Your task to perform on an android device: turn on data saver in the chrome app Image 0: 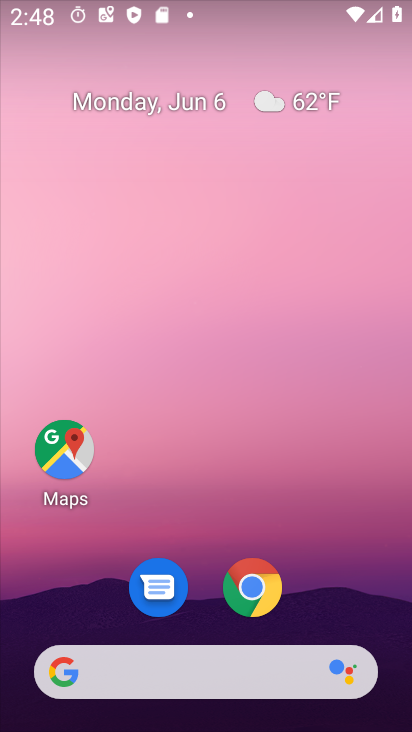
Step 0: drag from (332, 518) to (186, 0)
Your task to perform on an android device: turn on data saver in the chrome app Image 1: 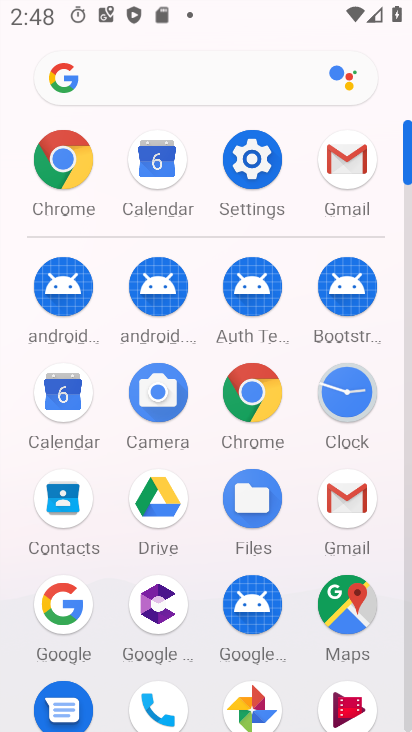
Step 1: drag from (14, 577) to (17, 201)
Your task to perform on an android device: turn on data saver in the chrome app Image 2: 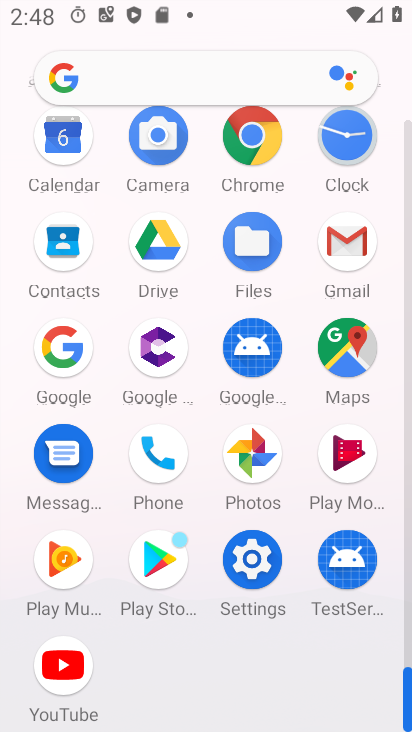
Step 2: click (246, 125)
Your task to perform on an android device: turn on data saver in the chrome app Image 3: 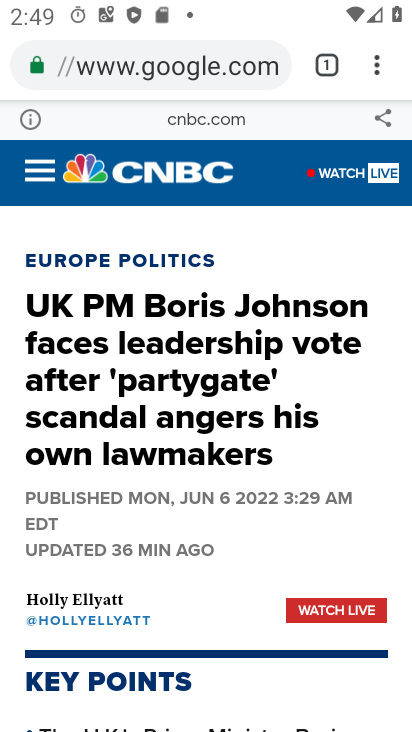
Step 3: drag from (379, 67) to (222, 627)
Your task to perform on an android device: turn on data saver in the chrome app Image 4: 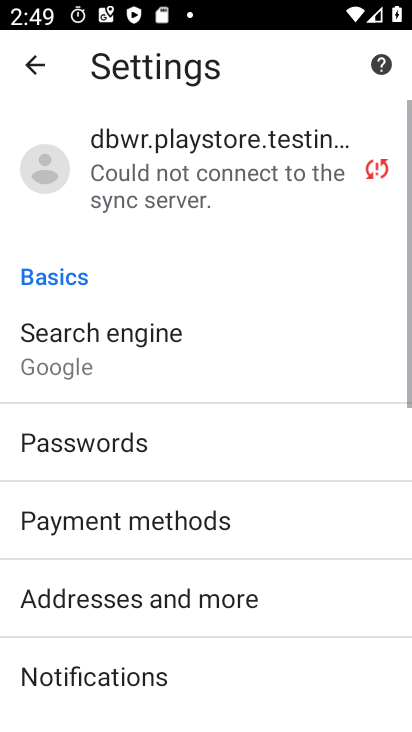
Step 4: drag from (208, 543) to (208, 211)
Your task to perform on an android device: turn on data saver in the chrome app Image 5: 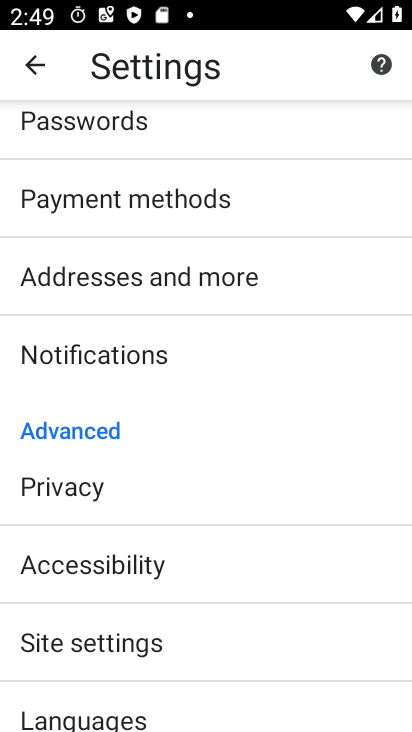
Step 5: drag from (200, 600) to (233, 184)
Your task to perform on an android device: turn on data saver in the chrome app Image 6: 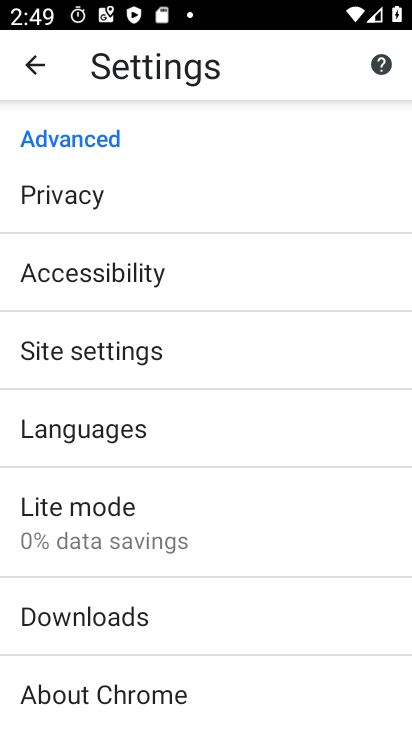
Step 6: click (183, 506)
Your task to perform on an android device: turn on data saver in the chrome app Image 7: 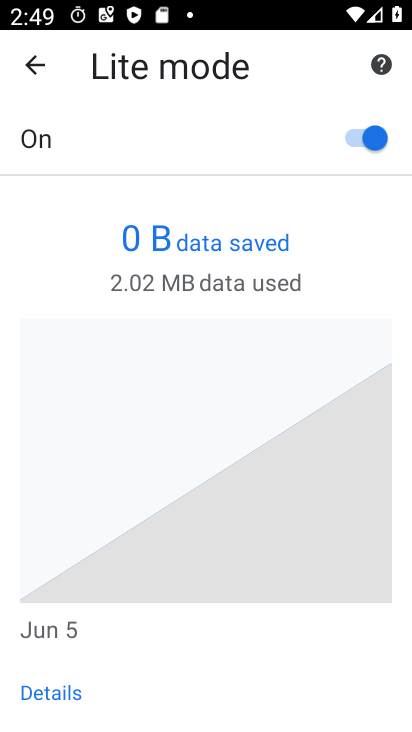
Step 7: task complete